Your task to perform on an android device: Is it going to rain this weekend? Image 0: 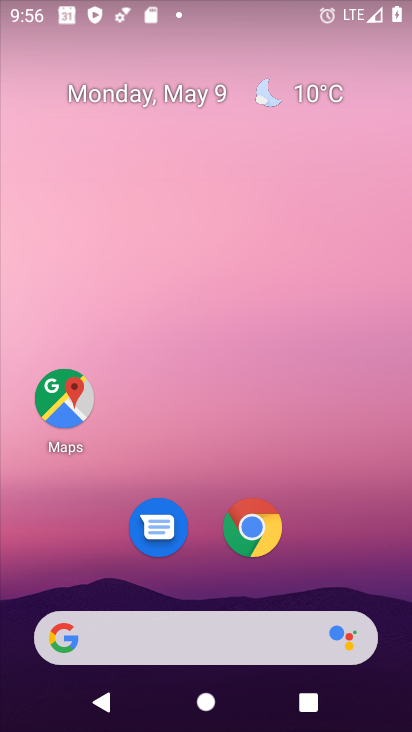
Step 0: click (321, 88)
Your task to perform on an android device: Is it going to rain this weekend? Image 1: 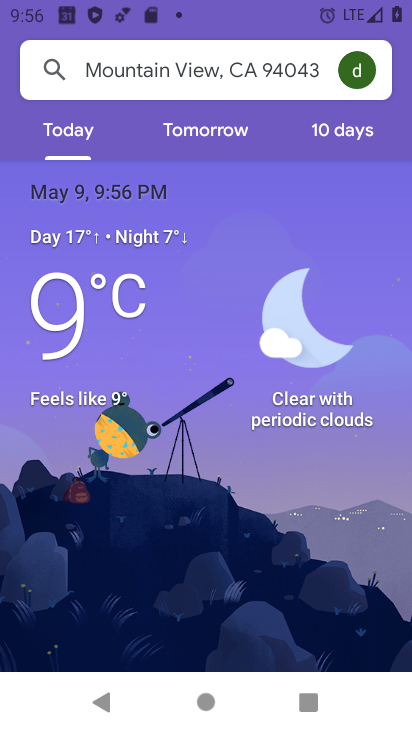
Step 1: click (343, 119)
Your task to perform on an android device: Is it going to rain this weekend? Image 2: 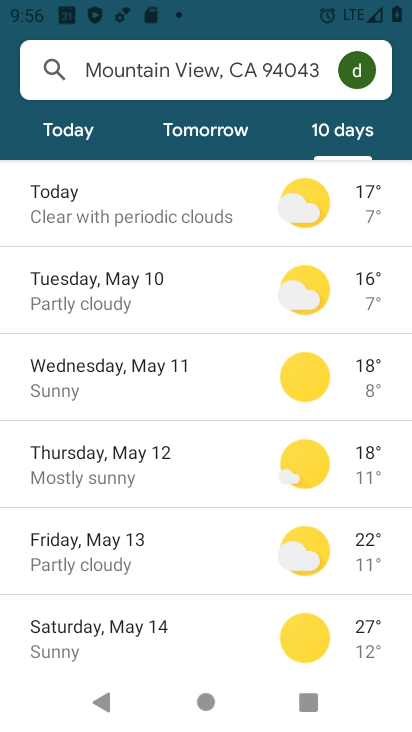
Step 2: task complete